Your task to perform on an android device: Open Google Chrome Image 0: 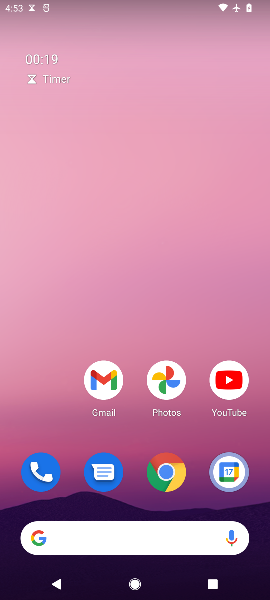
Step 0: click (164, 472)
Your task to perform on an android device: Open Google Chrome Image 1: 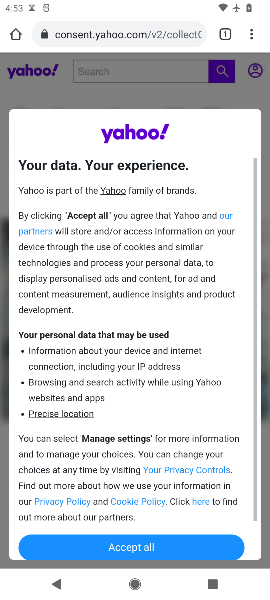
Step 1: task complete